Your task to perform on an android device: turn off notifications settings in the gmail app Image 0: 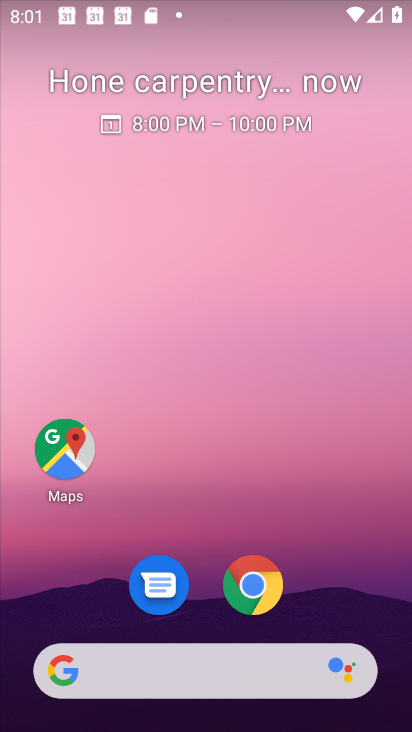
Step 0: drag from (330, 520) to (261, 92)
Your task to perform on an android device: turn off notifications settings in the gmail app Image 1: 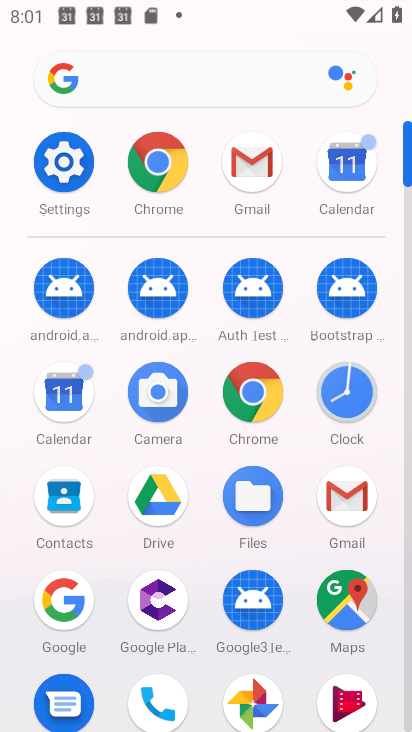
Step 1: click (240, 151)
Your task to perform on an android device: turn off notifications settings in the gmail app Image 2: 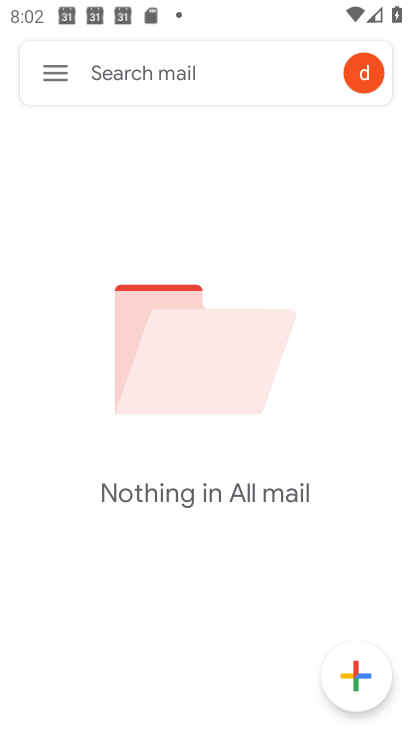
Step 2: click (57, 69)
Your task to perform on an android device: turn off notifications settings in the gmail app Image 3: 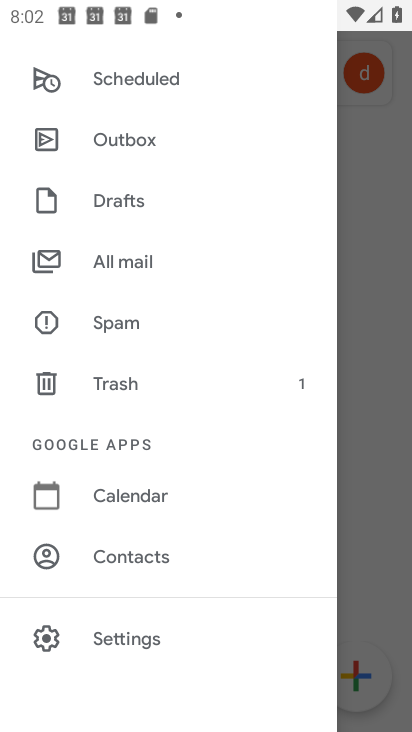
Step 3: click (147, 620)
Your task to perform on an android device: turn off notifications settings in the gmail app Image 4: 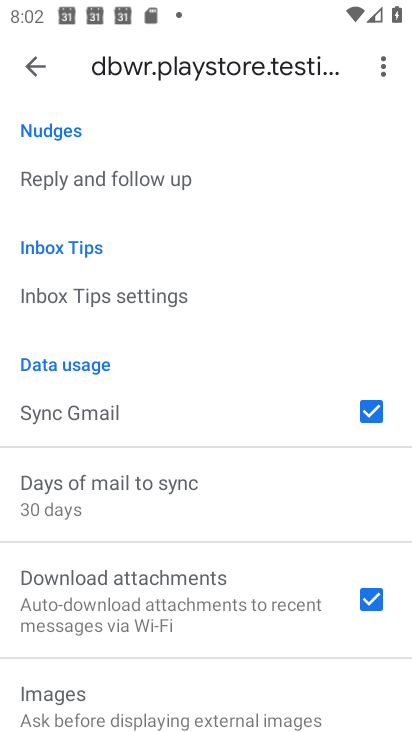
Step 4: drag from (232, 577) to (249, 201)
Your task to perform on an android device: turn off notifications settings in the gmail app Image 5: 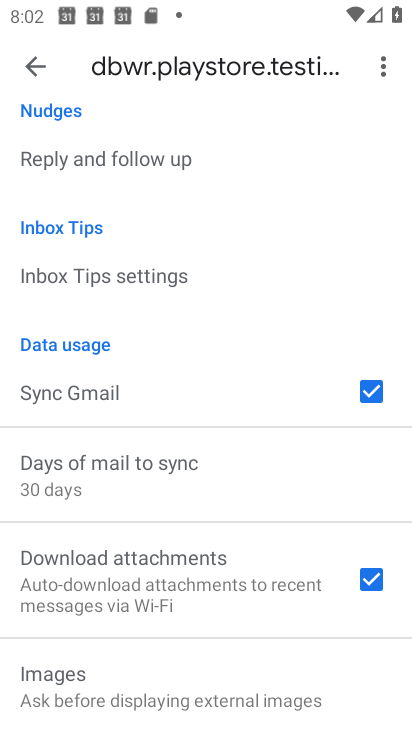
Step 5: drag from (249, 187) to (237, 699)
Your task to perform on an android device: turn off notifications settings in the gmail app Image 6: 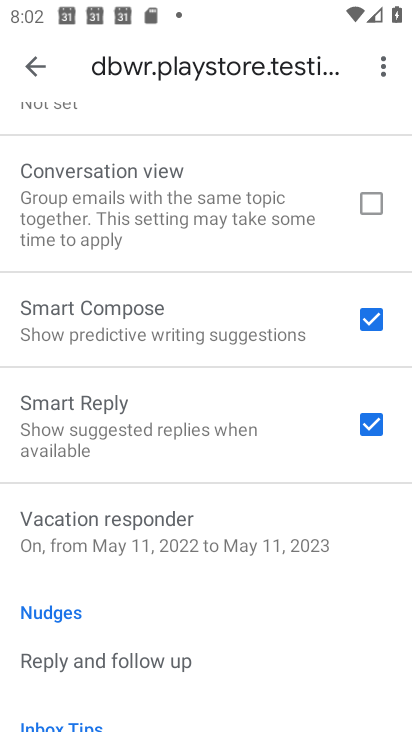
Step 6: drag from (278, 225) to (222, 675)
Your task to perform on an android device: turn off notifications settings in the gmail app Image 7: 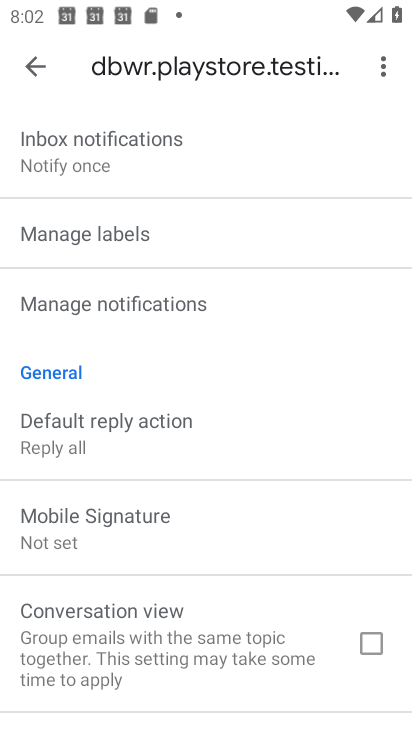
Step 7: click (194, 308)
Your task to perform on an android device: turn off notifications settings in the gmail app Image 8: 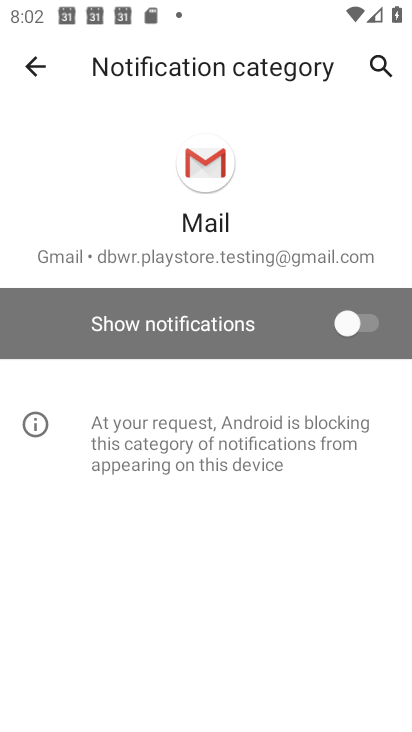
Step 8: task complete